Your task to perform on an android device: Open battery settings Image 0: 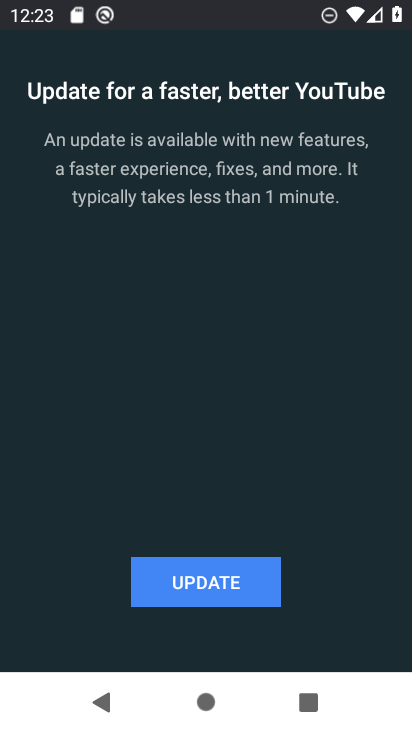
Step 0: press home button
Your task to perform on an android device: Open battery settings Image 1: 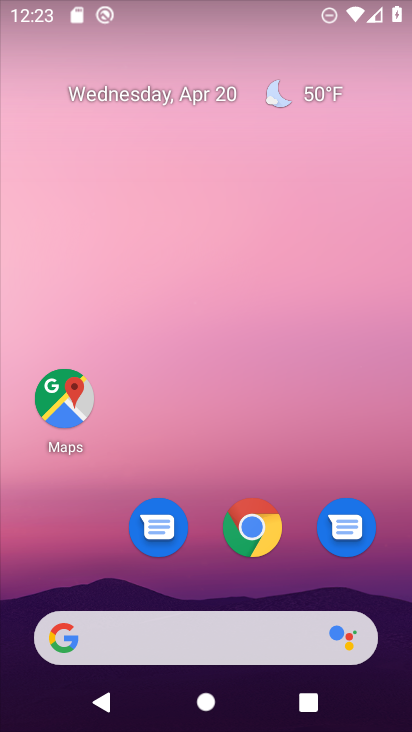
Step 1: drag from (293, 499) to (296, 2)
Your task to perform on an android device: Open battery settings Image 2: 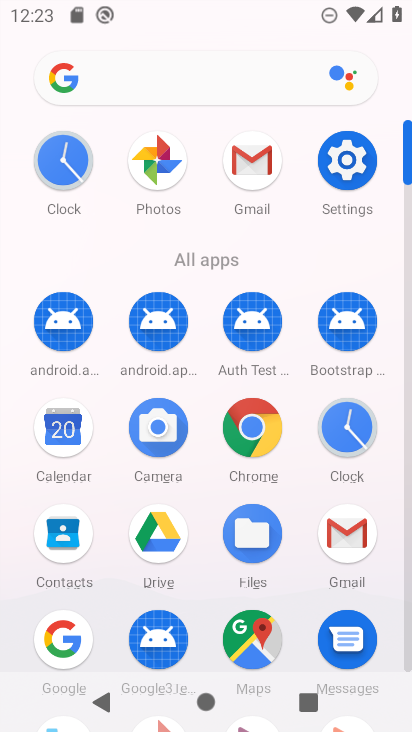
Step 2: click (349, 173)
Your task to perform on an android device: Open battery settings Image 3: 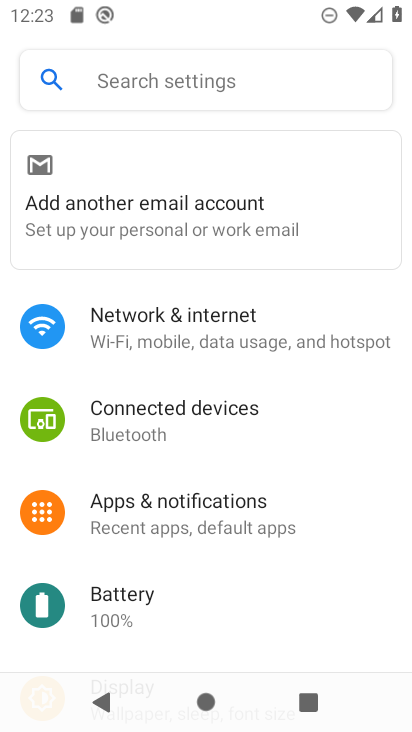
Step 3: drag from (271, 520) to (280, 298)
Your task to perform on an android device: Open battery settings Image 4: 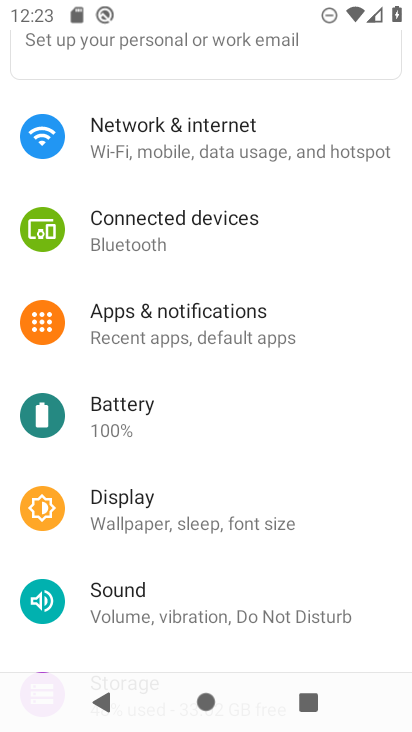
Step 4: click (124, 417)
Your task to perform on an android device: Open battery settings Image 5: 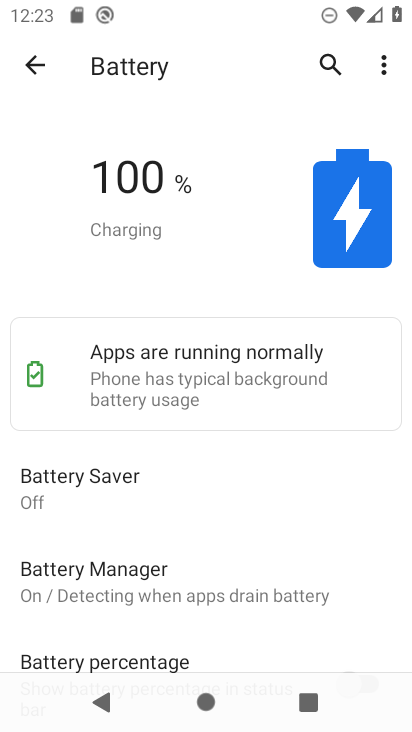
Step 5: task complete